Your task to perform on an android device: open chrome and create a bookmark for the current page Image 0: 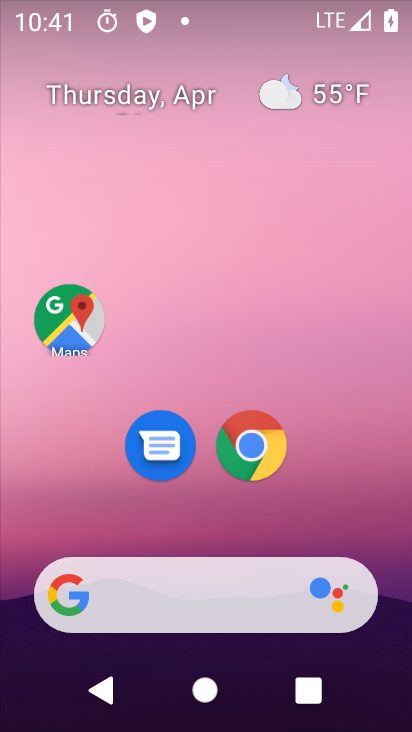
Step 0: click (243, 439)
Your task to perform on an android device: open chrome and create a bookmark for the current page Image 1: 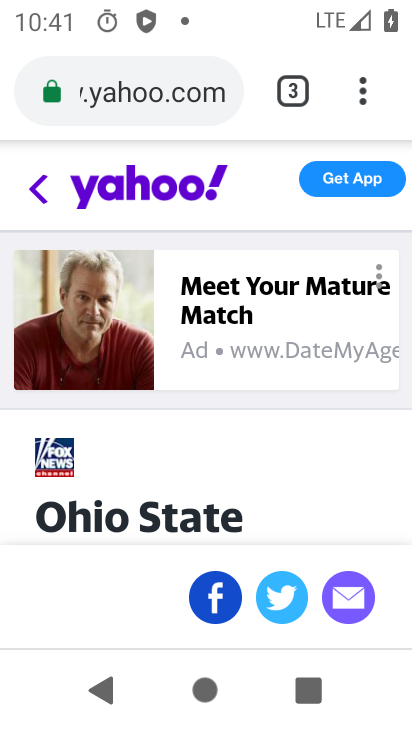
Step 1: click (362, 99)
Your task to perform on an android device: open chrome and create a bookmark for the current page Image 2: 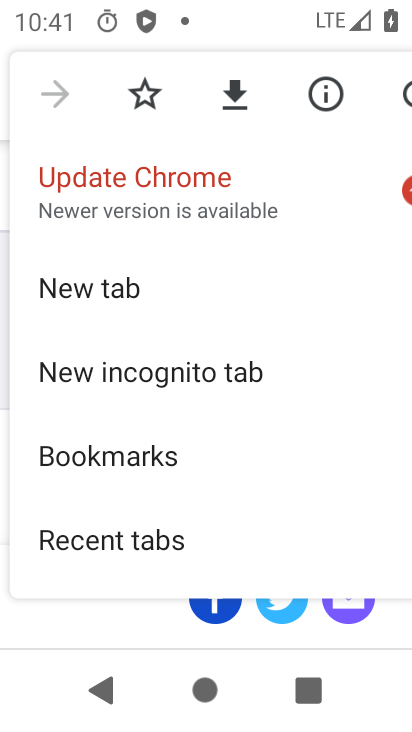
Step 2: click (153, 97)
Your task to perform on an android device: open chrome and create a bookmark for the current page Image 3: 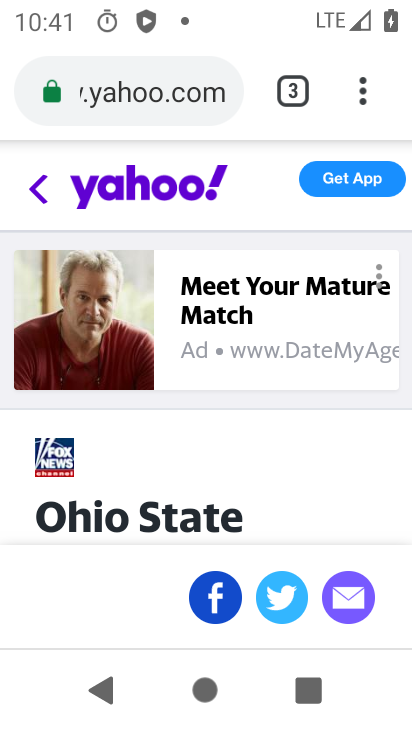
Step 3: task complete